Your task to perform on an android device: Go to network settings Image 0: 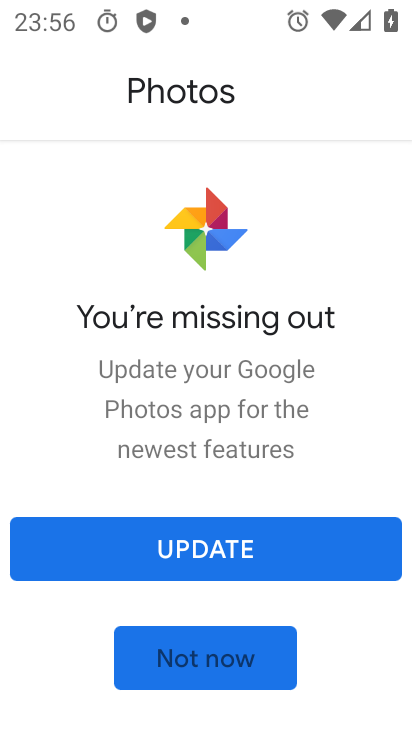
Step 0: click (200, 657)
Your task to perform on an android device: Go to network settings Image 1: 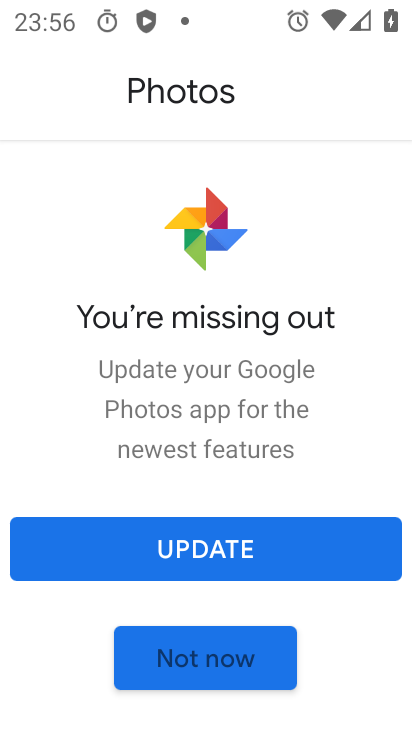
Step 1: click (189, 649)
Your task to perform on an android device: Go to network settings Image 2: 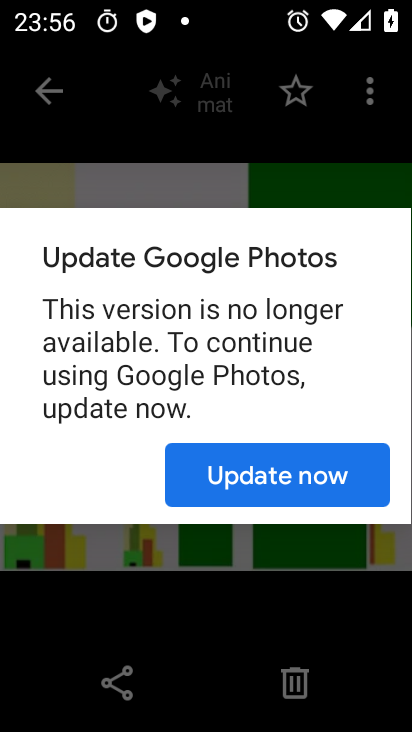
Step 2: press back button
Your task to perform on an android device: Go to network settings Image 3: 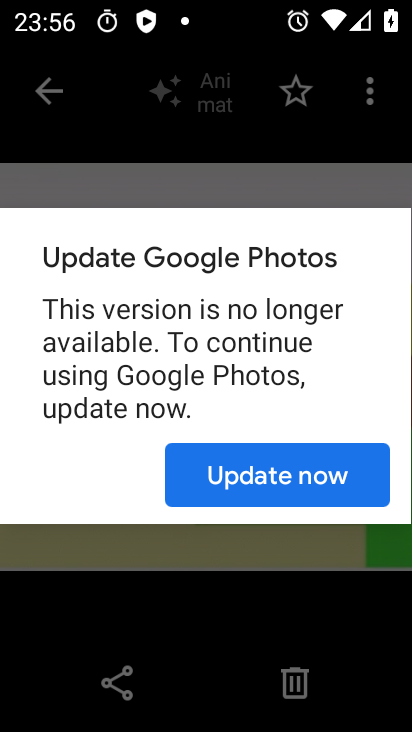
Step 3: press back button
Your task to perform on an android device: Go to network settings Image 4: 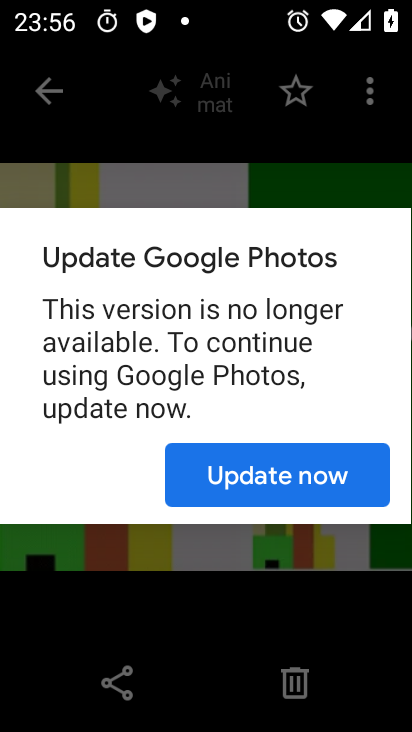
Step 4: press back button
Your task to perform on an android device: Go to network settings Image 5: 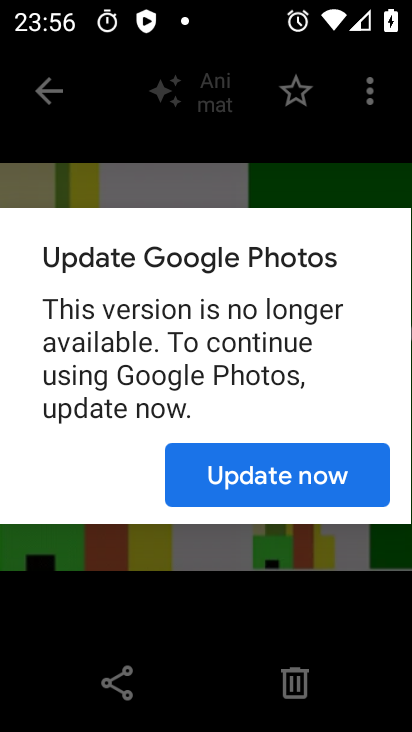
Step 5: press home button
Your task to perform on an android device: Go to network settings Image 6: 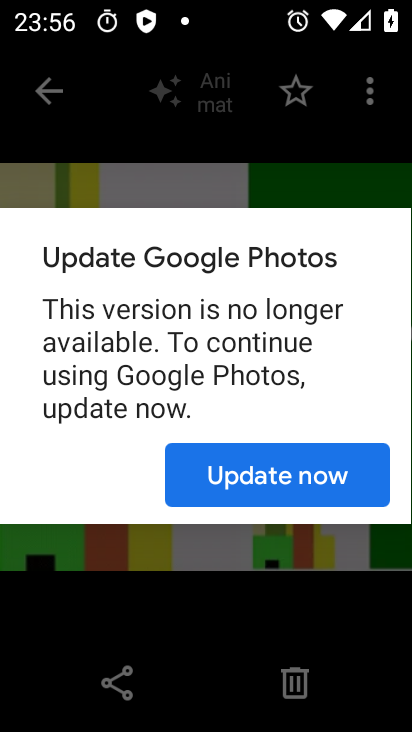
Step 6: press home button
Your task to perform on an android device: Go to network settings Image 7: 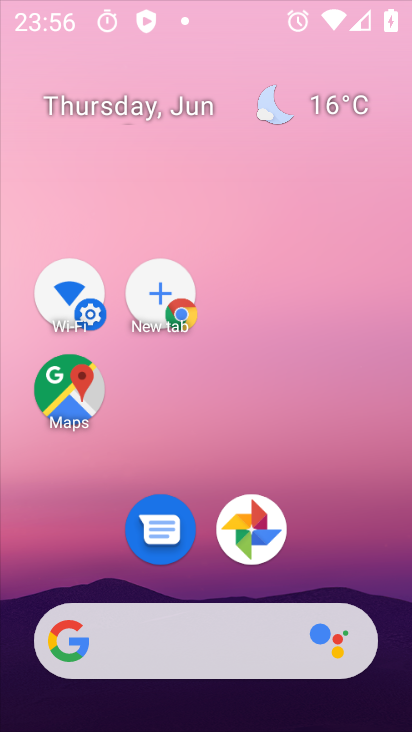
Step 7: press home button
Your task to perform on an android device: Go to network settings Image 8: 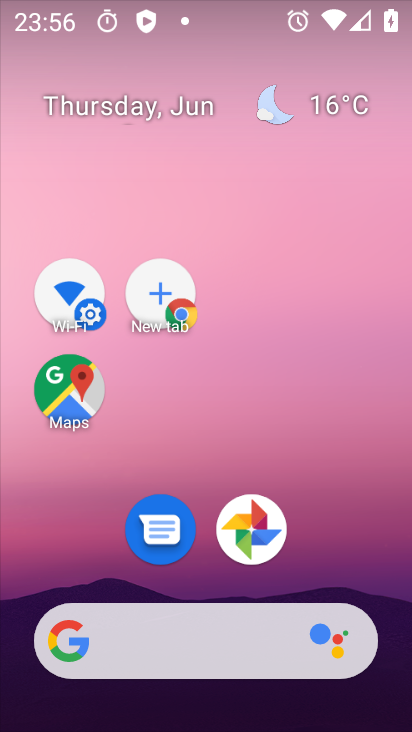
Step 8: press home button
Your task to perform on an android device: Go to network settings Image 9: 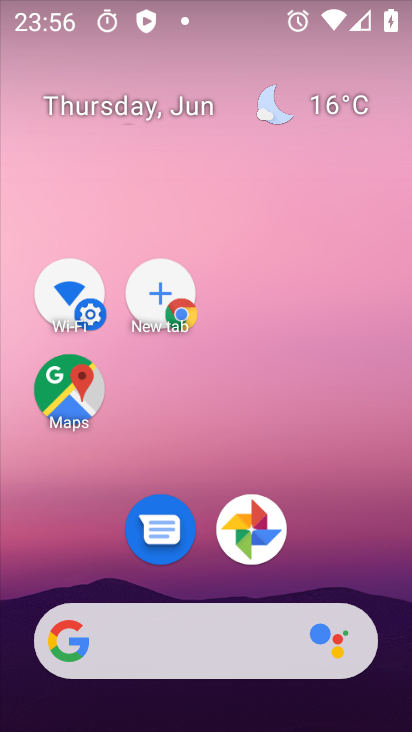
Step 9: drag from (242, 608) to (144, 59)
Your task to perform on an android device: Go to network settings Image 10: 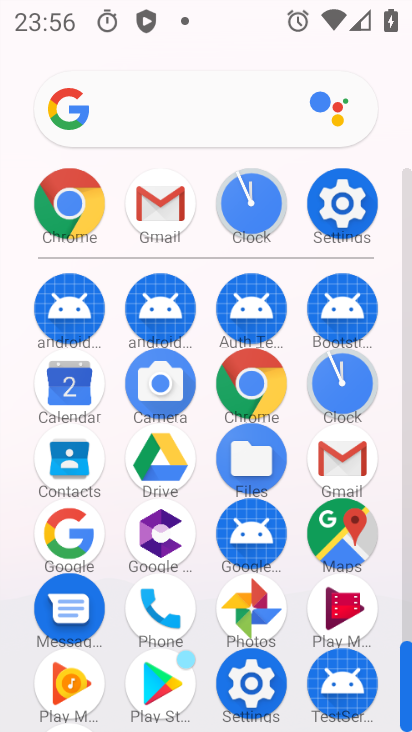
Step 10: click (341, 214)
Your task to perform on an android device: Go to network settings Image 11: 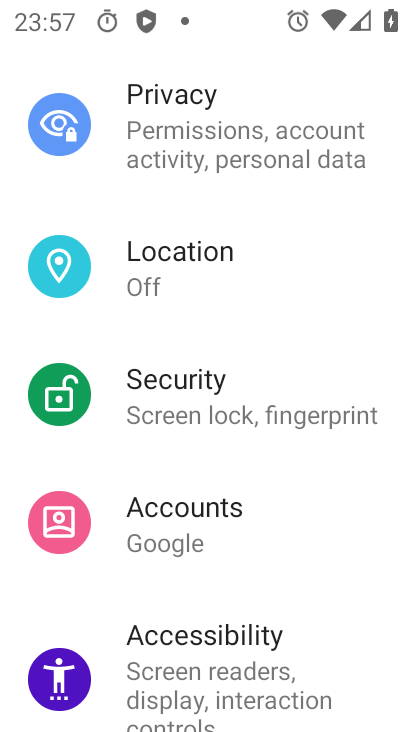
Step 11: drag from (188, 351) to (218, 497)
Your task to perform on an android device: Go to network settings Image 12: 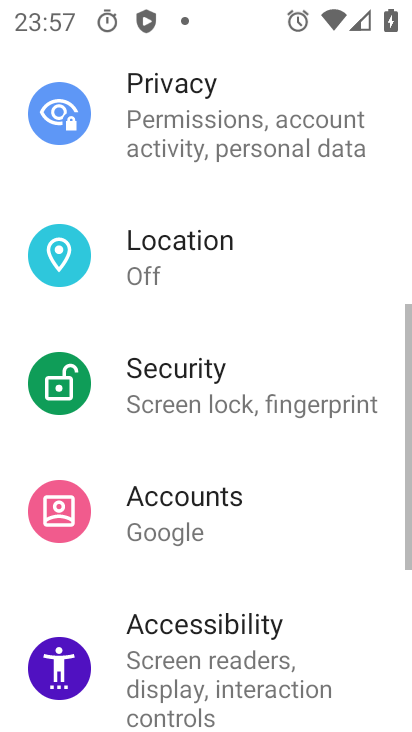
Step 12: drag from (159, 250) to (250, 535)
Your task to perform on an android device: Go to network settings Image 13: 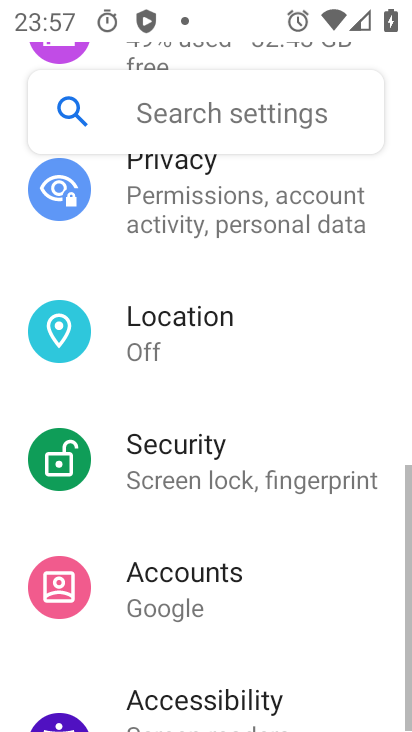
Step 13: drag from (202, 262) to (249, 590)
Your task to perform on an android device: Go to network settings Image 14: 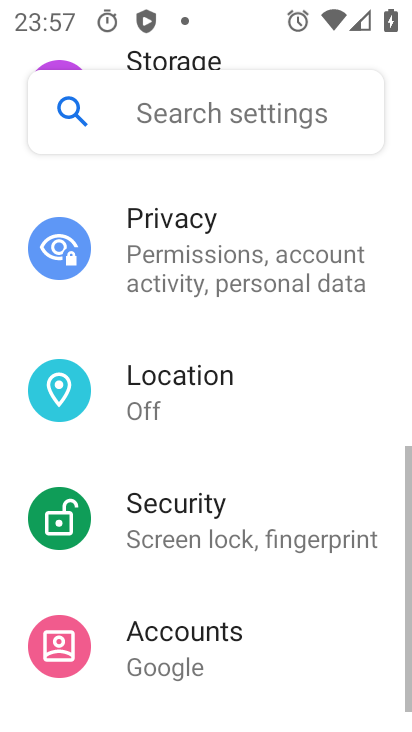
Step 14: drag from (198, 280) to (197, 641)
Your task to perform on an android device: Go to network settings Image 15: 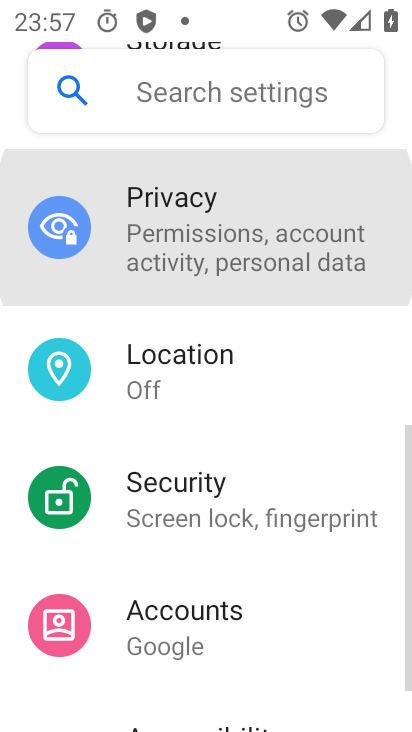
Step 15: drag from (142, 259) to (174, 581)
Your task to perform on an android device: Go to network settings Image 16: 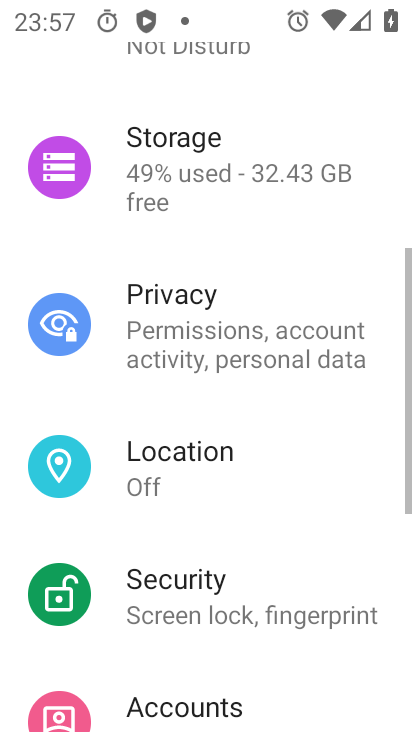
Step 16: drag from (131, 229) to (217, 553)
Your task to perform on an android device: Go to network settings Image 17: 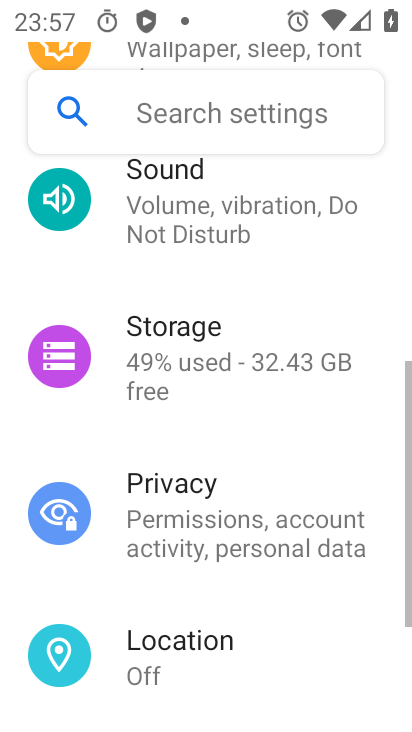
Step 17: drag from (135, 111) to (271, 554)
Your task to perform on an android device: Go to network settings Image 18: 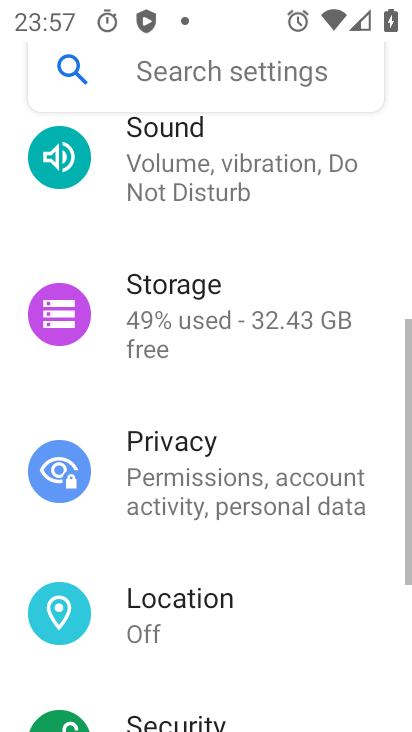
Step 18: drag from (189, 143) to (210, 557)
Your task to perform on an android device: Go to network settings Image 19: 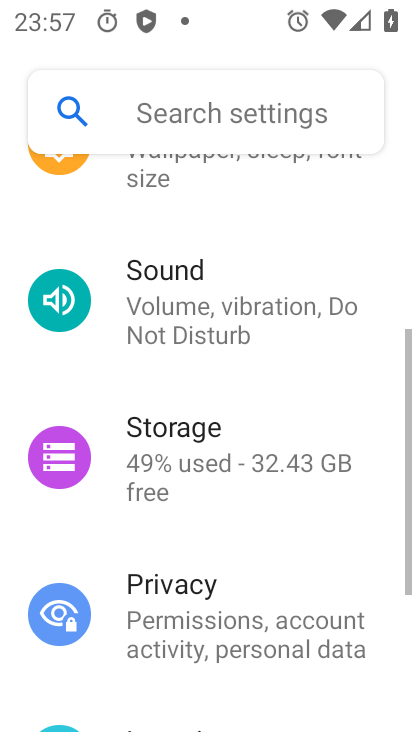
Step 19: drag from (168, 224) to (231, 527)
Your task to perform on an android device: Go to network settings Image 20: 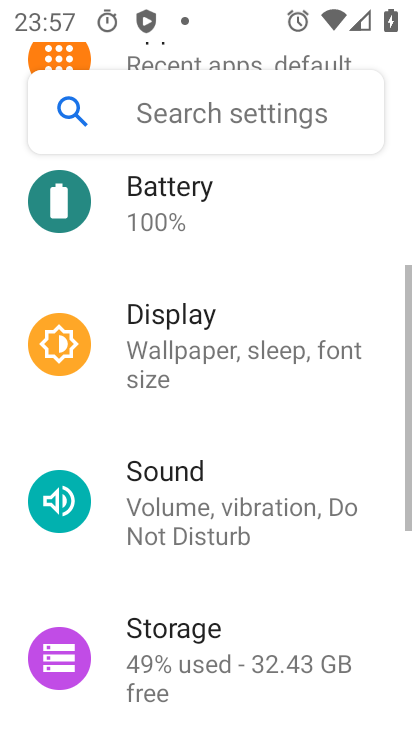
Step 20: drag from (223, 291) to (219, 636)
Your task to perform on an android device: Go to network settings Image 21: 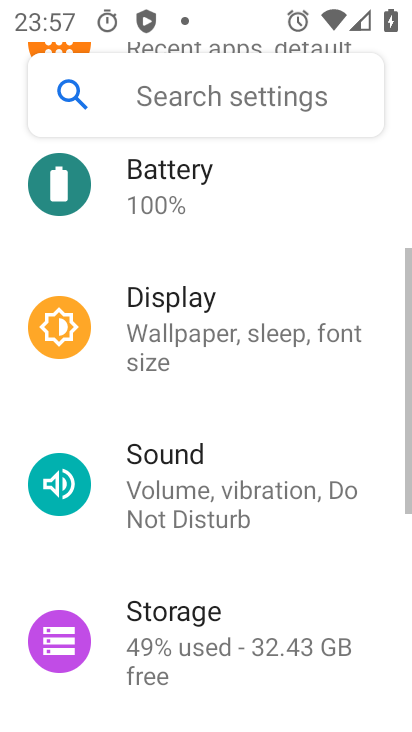
Step 21: drag from (119, 202) to (181, 596)
Your task to perform on an android device: Go to network settings Image 22: 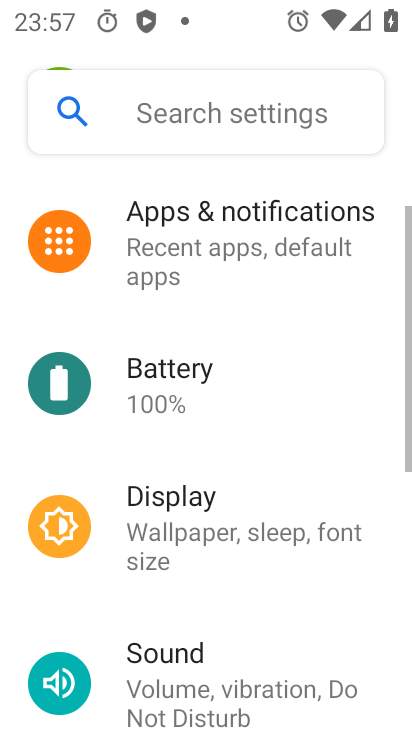
Step 22: drag from (171, 507) to (191, 675)
Your task to perform on an android device: Go to network settings Image 23: 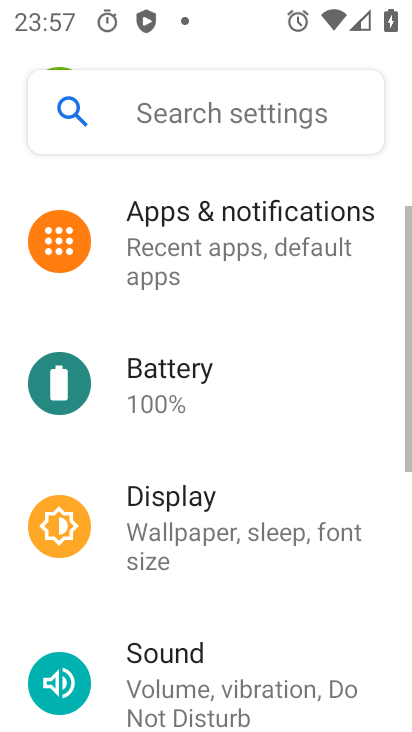
Step 23: drag from (108, 194) to (242, 601)
Your task to perform on an android device: Go to network settings Image 24: 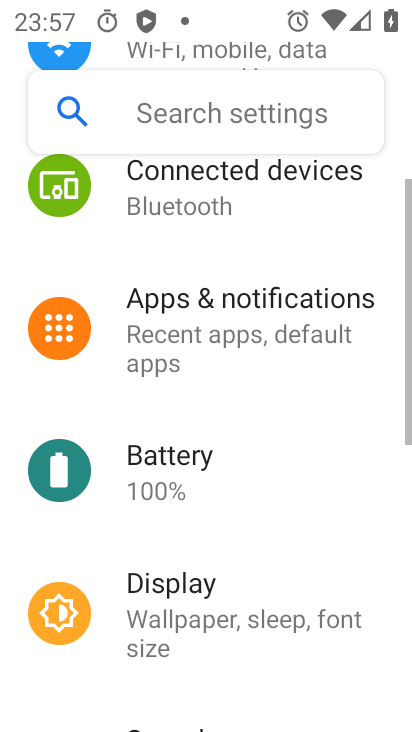
Step 24: drag from (212, 252) to (243, 522)
Your task to perform on an android device: Go to network settings Image 25: 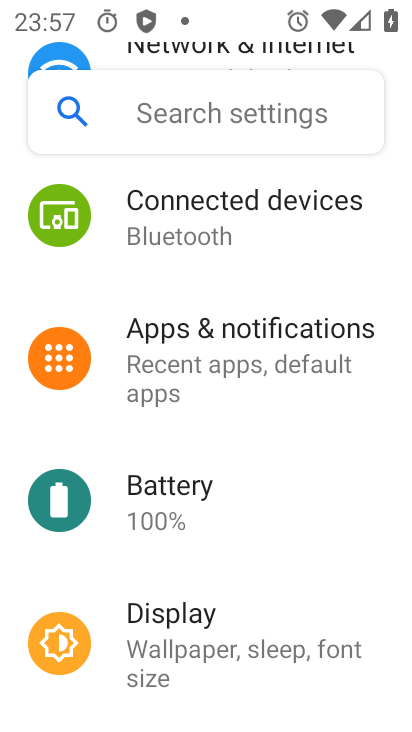
Step 25: drag from (210, 214) to (225, 549)
Your task to perform on an android device: Go to network settings Image 26: 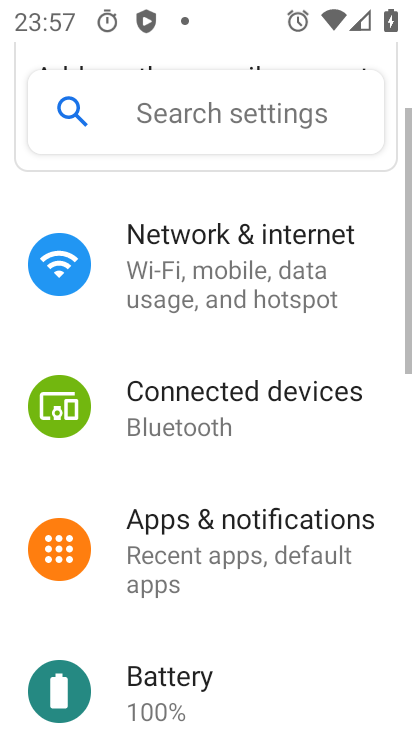
Step 26: drag from (207, 381) to (211, 651)
Your task to perform on an android device: Go to network settings Image 27: 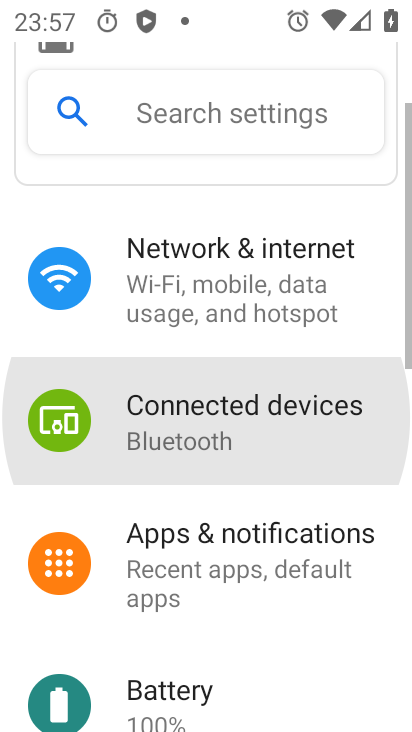
Step 27: drag from (148, 250) to (226, 604)
Your task to perform on an android device: Go to network settings Image 28: 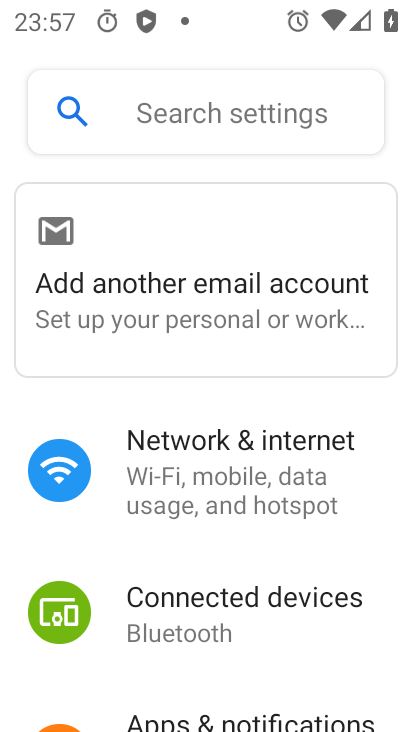
Step 28: click (211, 274)
Your task to perform on an android device: Go to network settings Image 29: 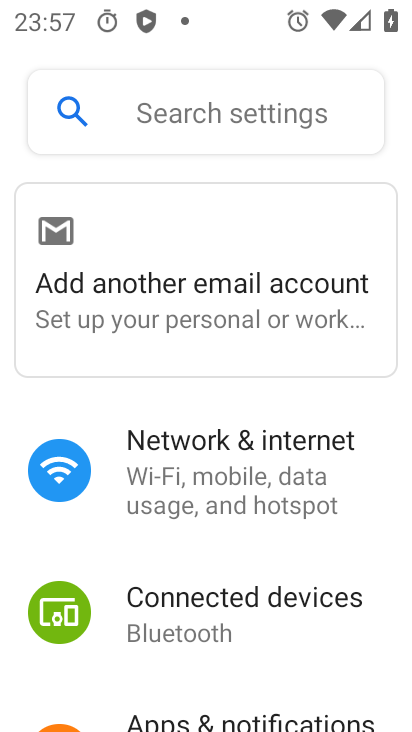
Step 29: click (211, 274)
Your task to perform on an android device: Go to network settings Image 30: 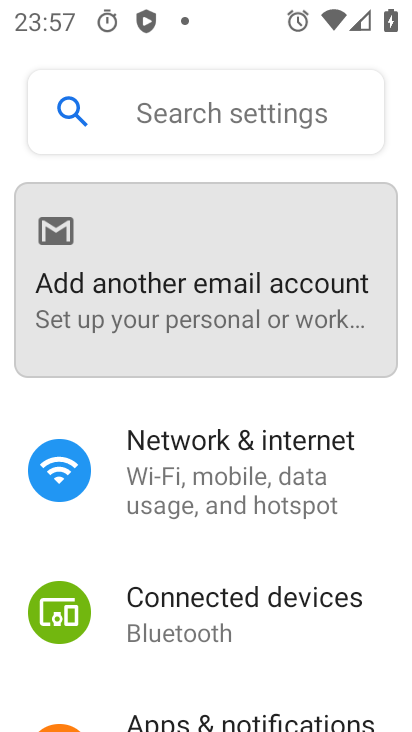
Step 30: click (211, 274)
Your task to perform on an android device: Go to network settings Image 31: 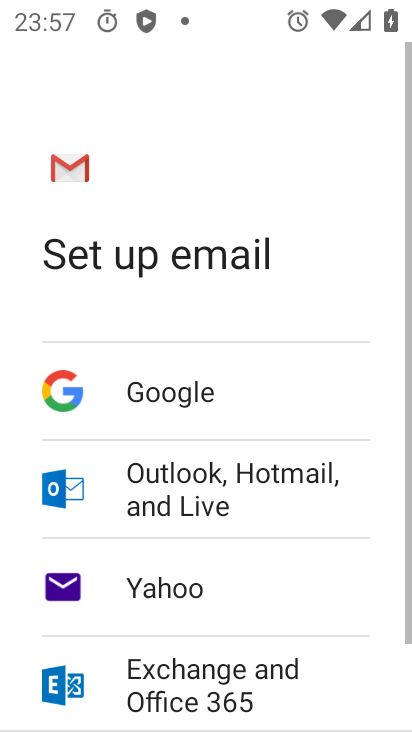
Step 31: click (205, 281)
Your task to perform on an android device: Go to network settings Image 32: 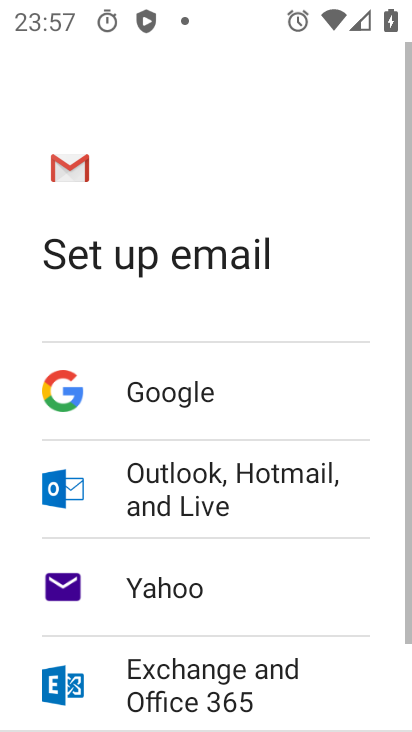
Step 32: click (205, 281)
Your task to perform on an android device: Go to network settings Image 33: 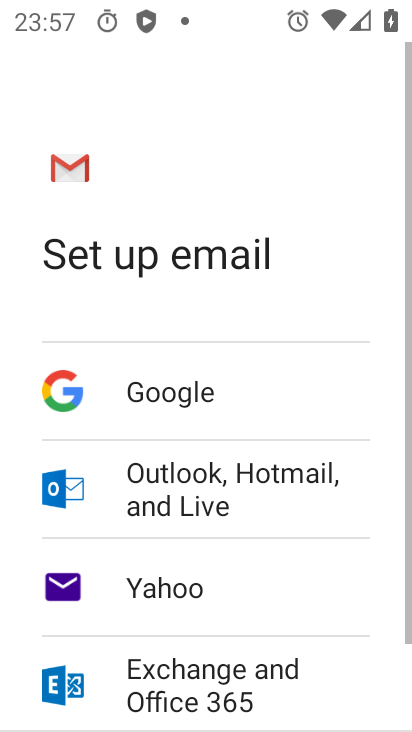
Step 33: click (205, 282)
Your task to perform on an android device: Go to network settings Image 34: 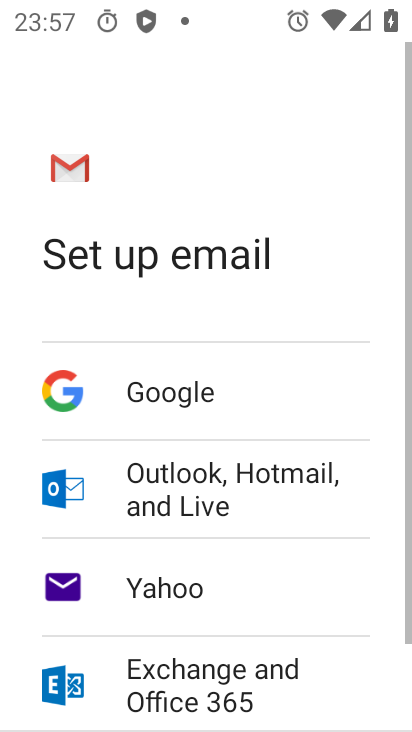
Step 34: task complete